Your task to perform on an android device: What's the weather going to be tomorrow? Image 0: 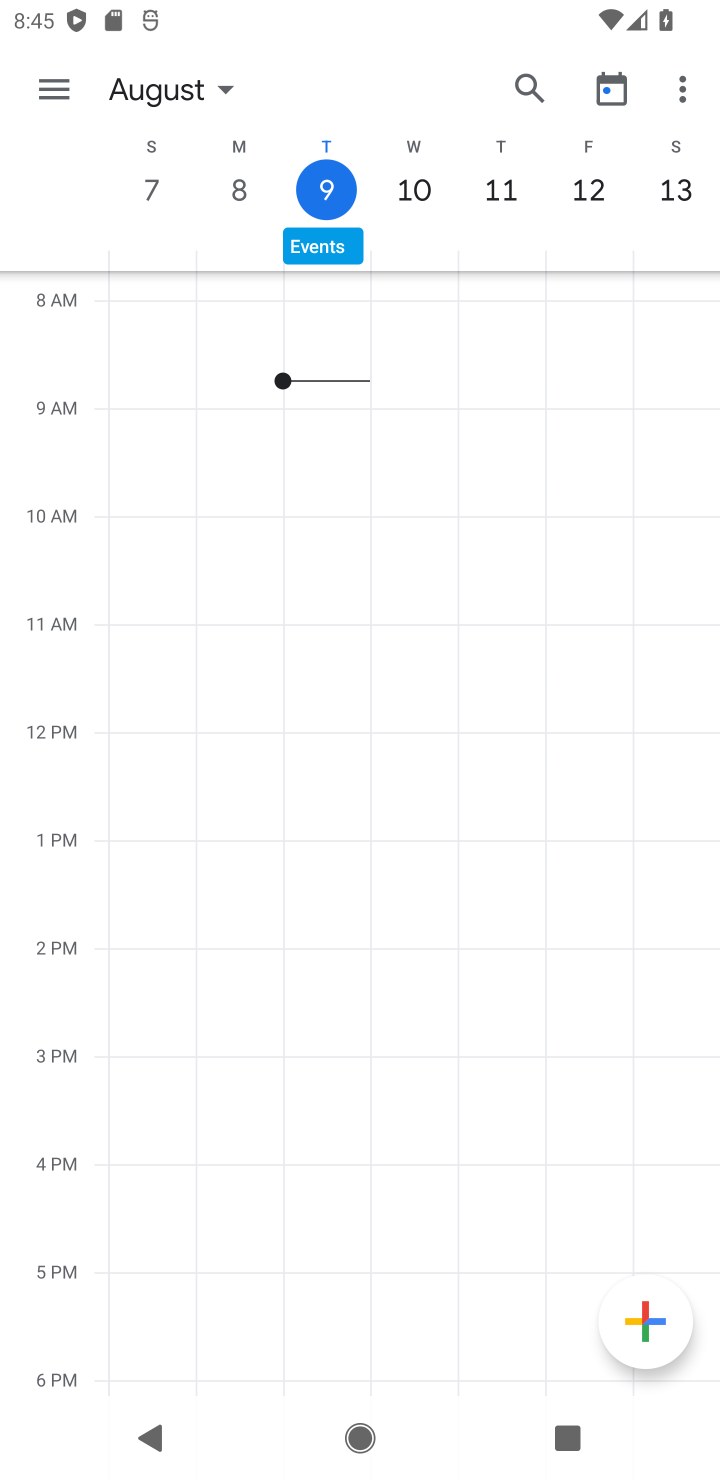
Step 0: press home button
Your task to perform on an android device: What's the weather going to be tomorrow? Image 1: 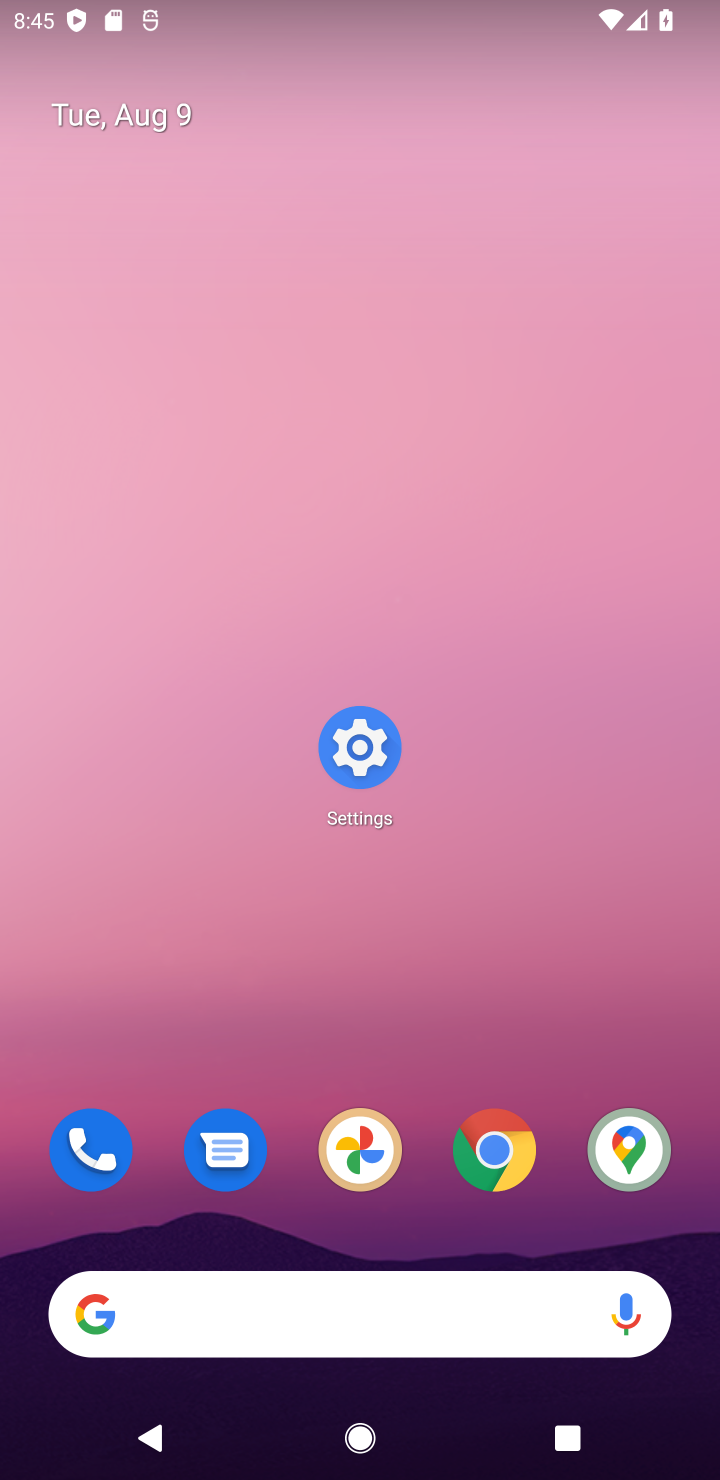
Step 1: click (242, 1308)
Your task to perform on an android device: What's the weather going to be tomorrow? Image 2: 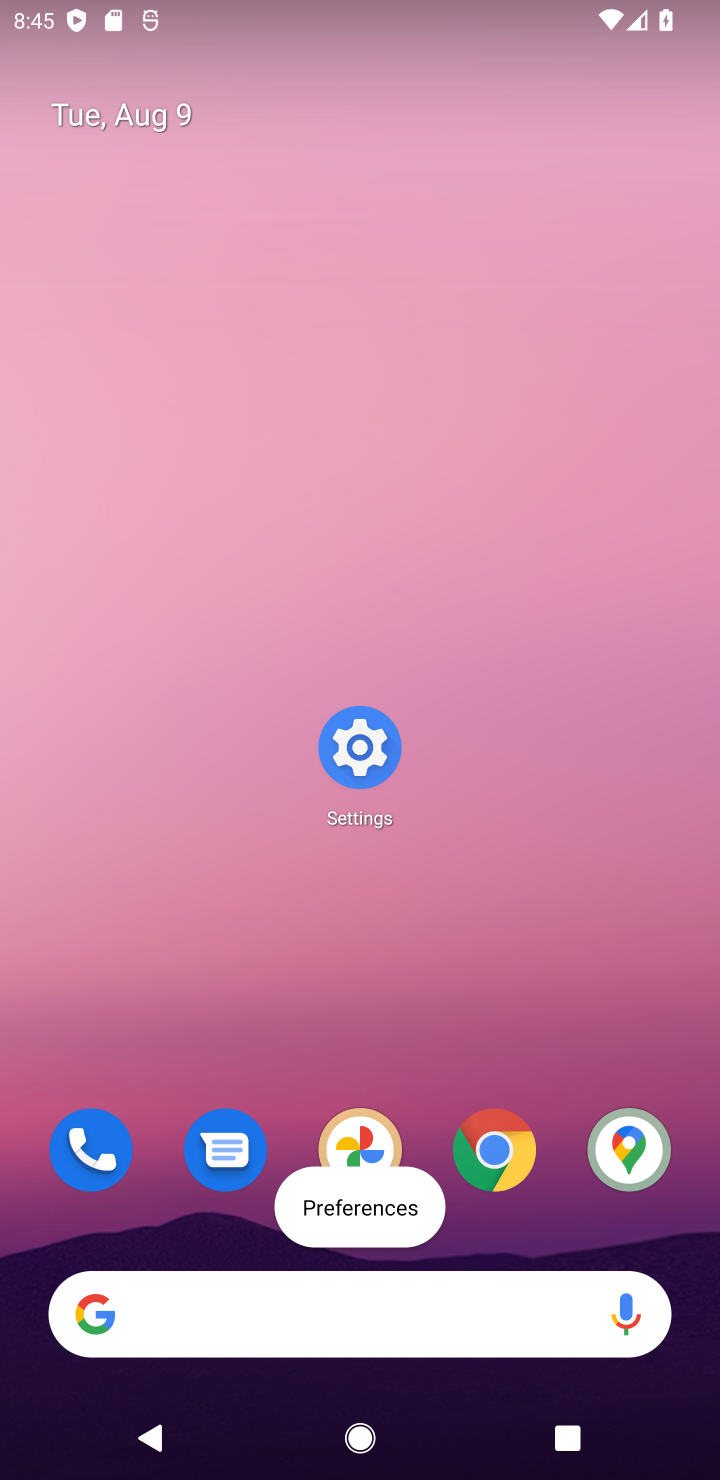
Step 2: click (240, 1303)
Your task to perform on an android device: What's the weather going to be tomorrow? Image 3: 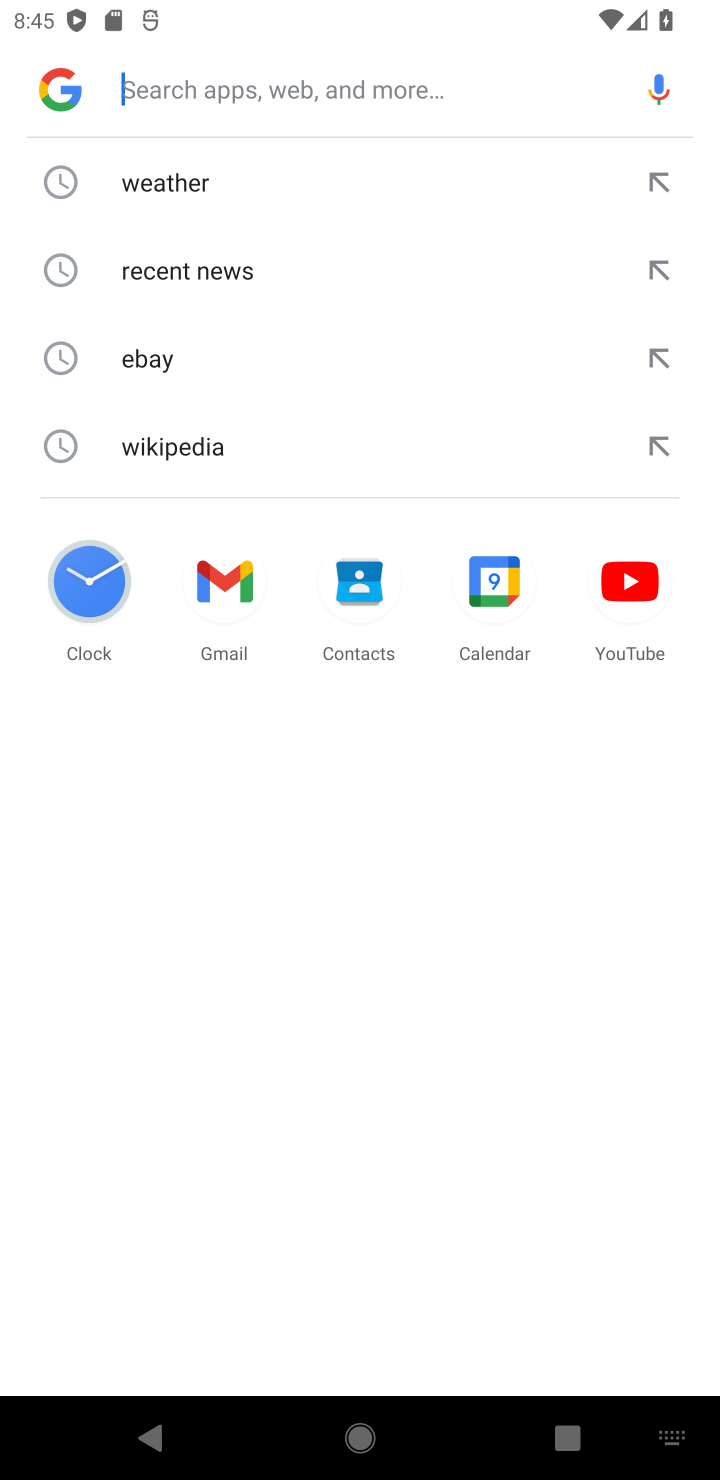
Step 3: click (156, 180)
Your task to perform on an android device: What's the weather going to be tomorrow? Image 4: 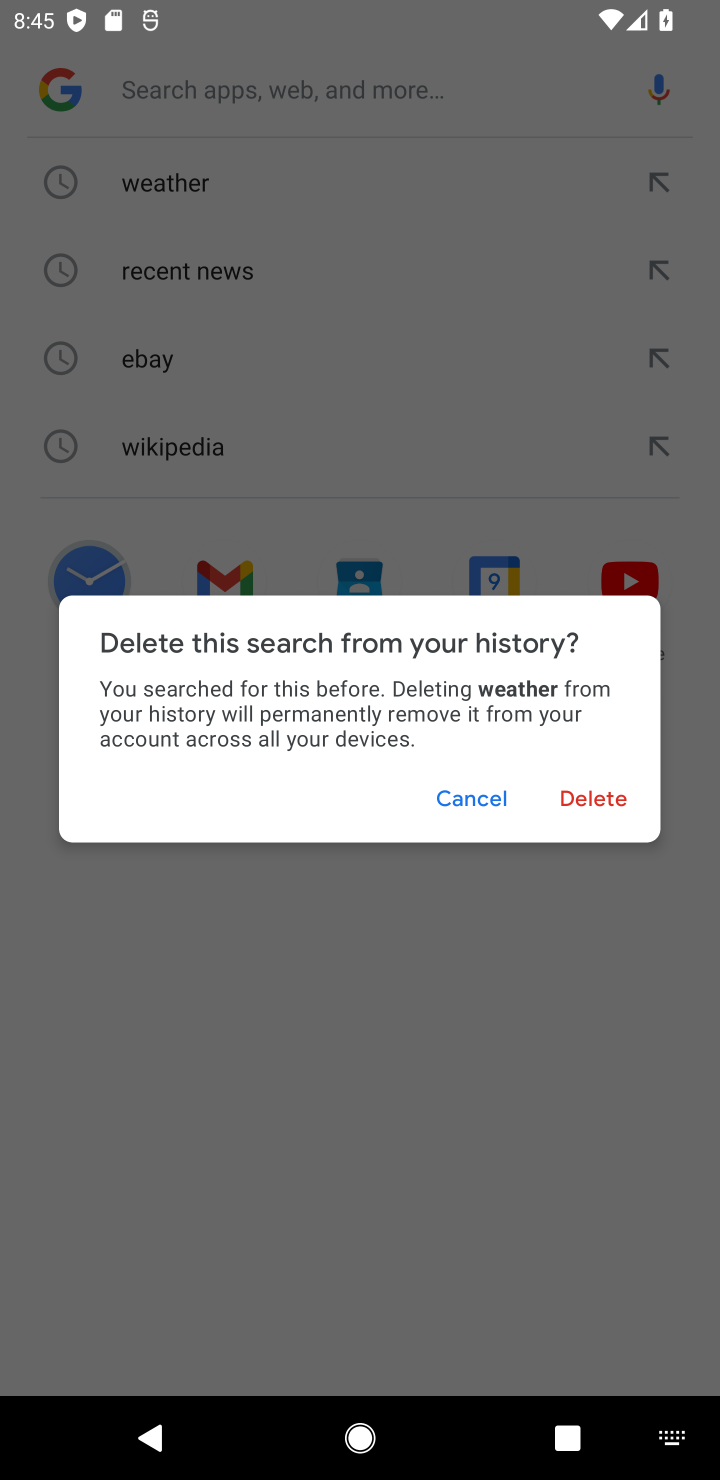
Step 4: click (483, 801)
Your task to perform on an android device: What's the weather going to be tomorrow? Image 5: 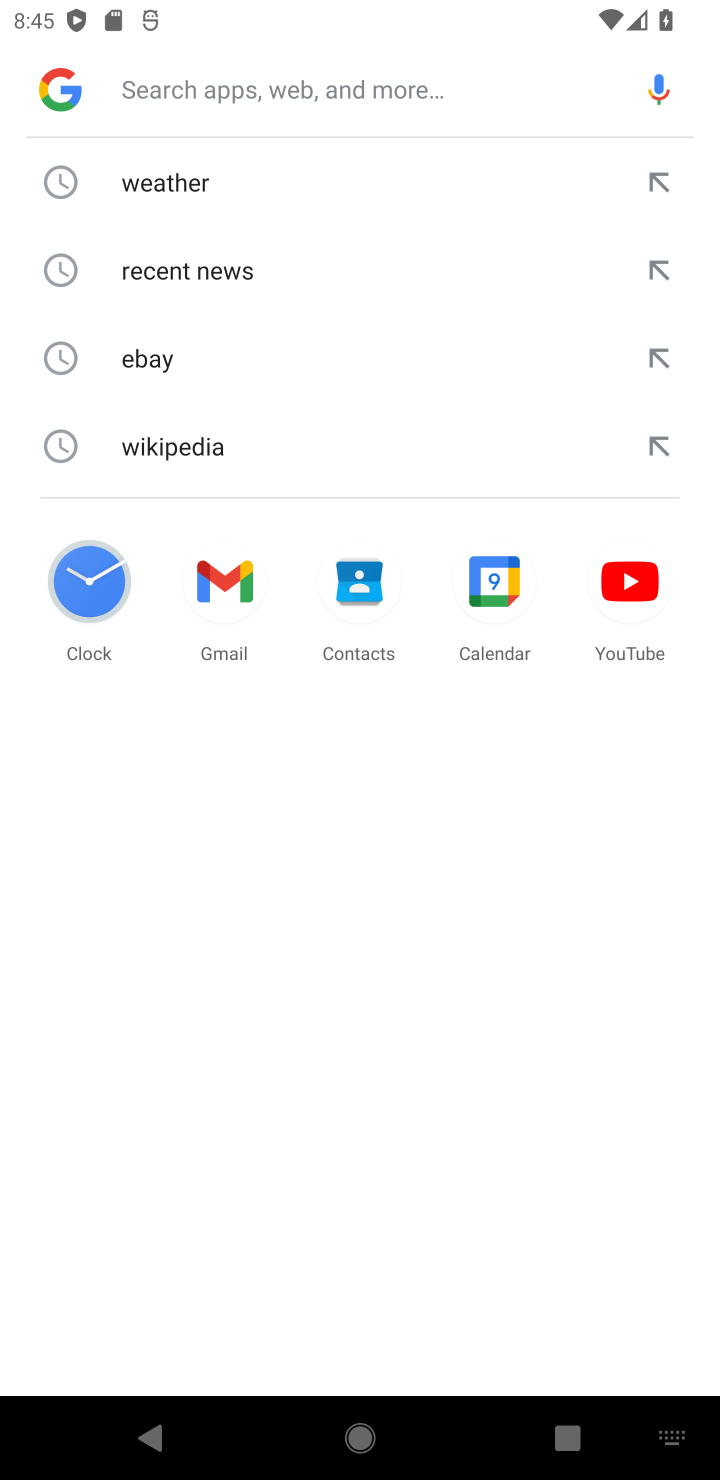
Step 5: click (660, 179)
Your task to perform on an android device: What's the weather going to be tomorrow? Image 6: 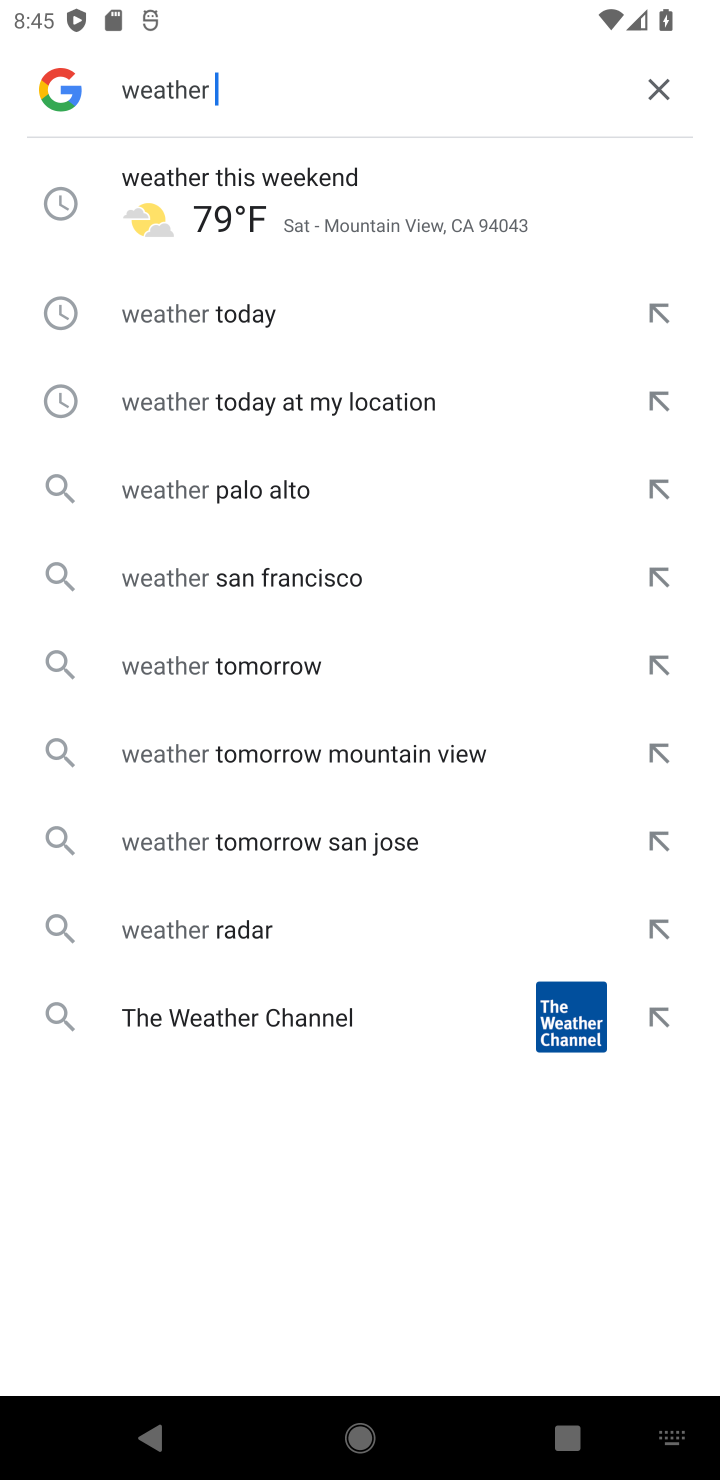
Step 6: click (255, 322)
Your task to perform on an android device: What's the weather going to be tomorrow? Image 7: 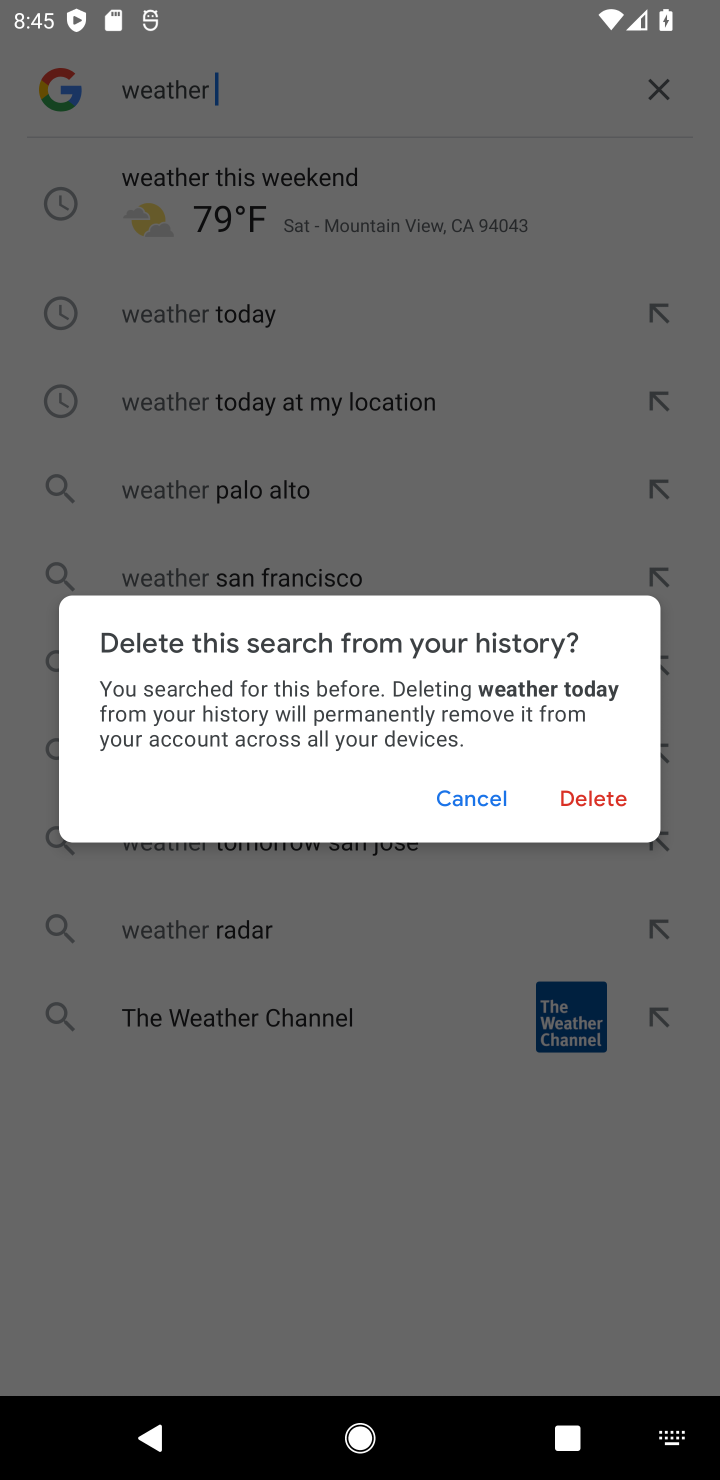
Step 7: click (508, 795)
Your task to perform on an android device: What's the weather going to be tomorrow? Image 8: 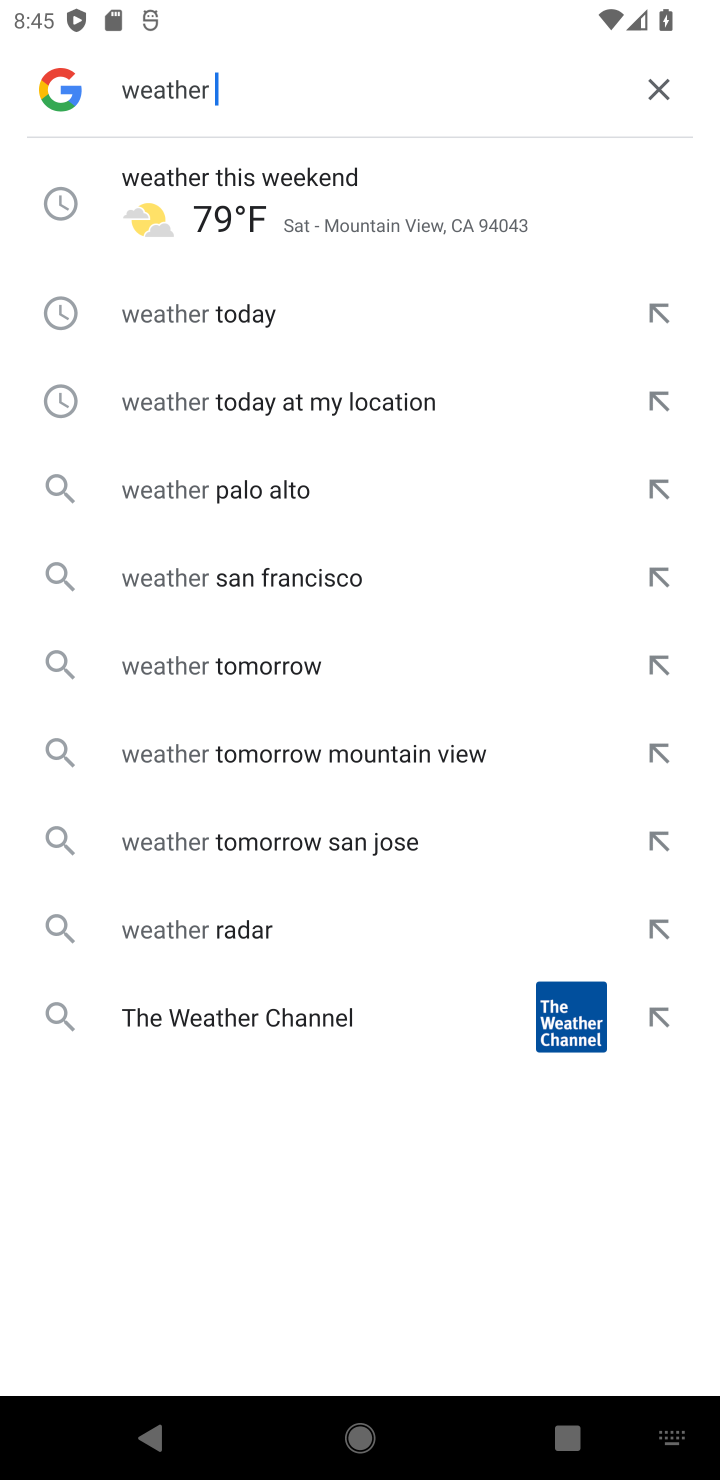
Step 8: click (670, 316)
Your task to perform on an android device: What's the weather going to be tomorrow? Image 9: 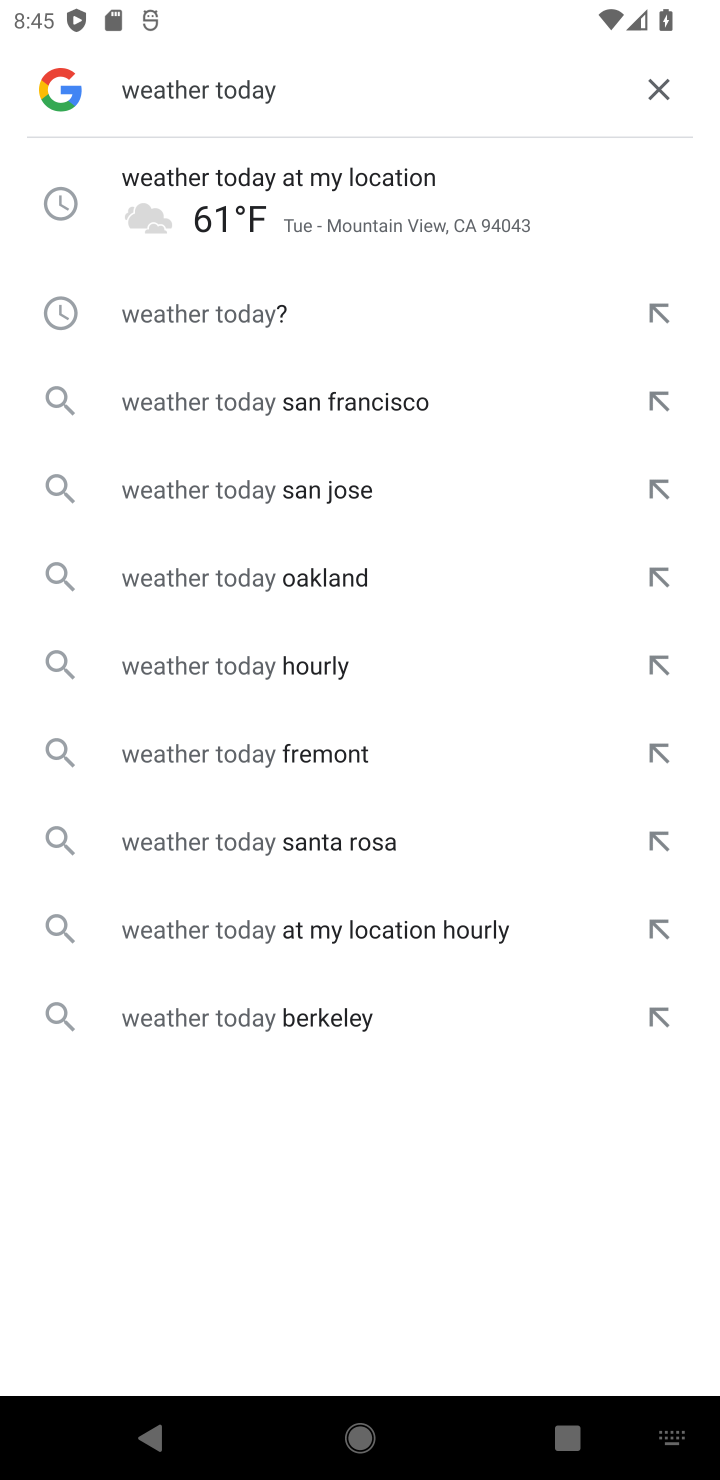
Step 9: click (224, 315)
Your task to perform on an android device: What's the weather going to be tomorrow? Image 10: 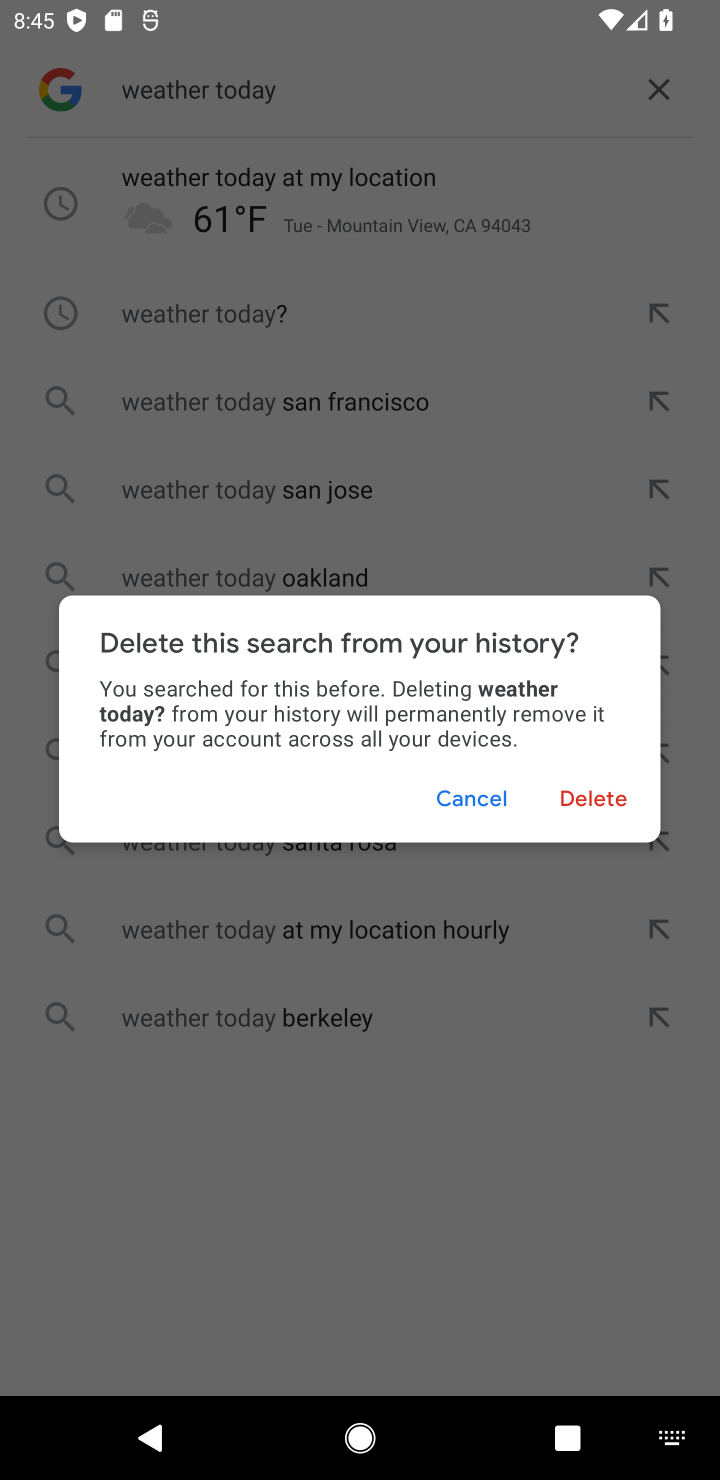
Step 10: click (492, 793)
Your task to perform on an android device: What's the weather going to be tomorrow? Image 11: 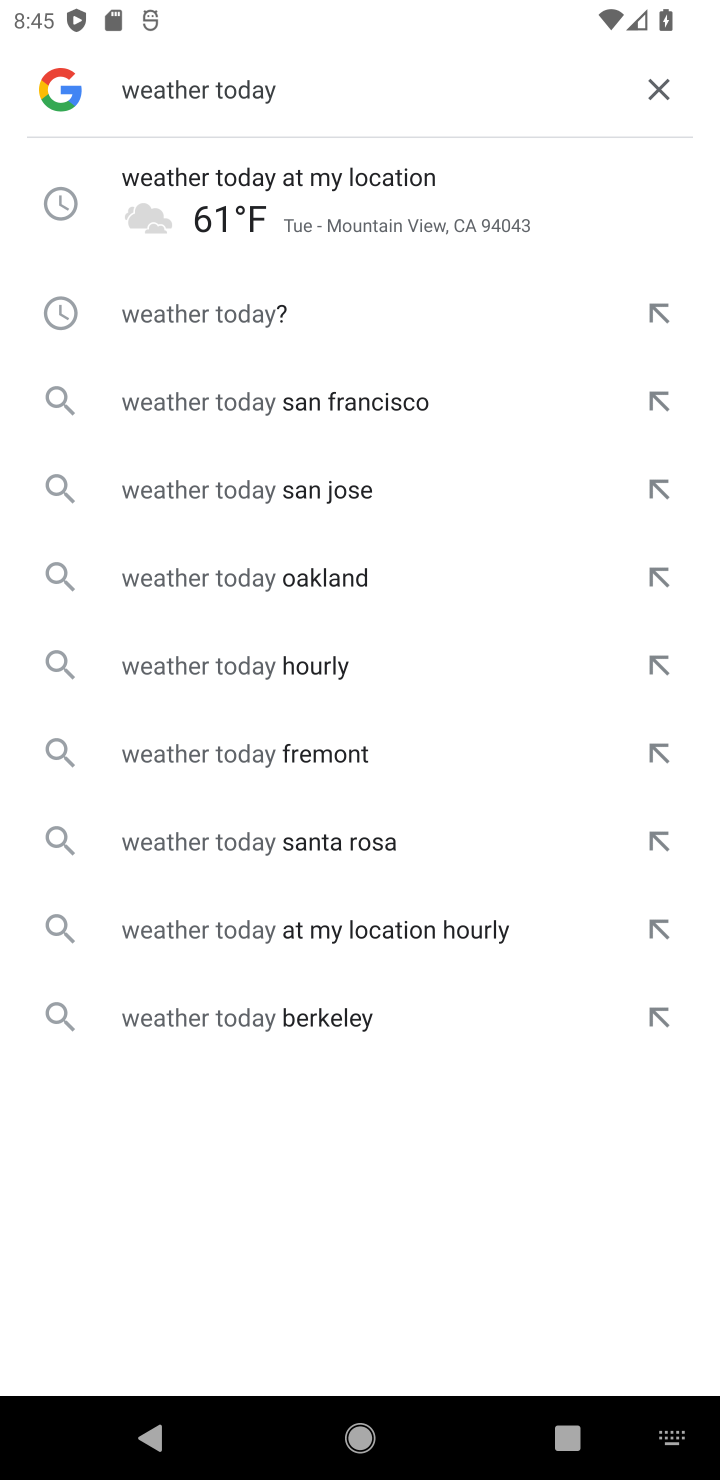
Step 11: click (477, 211)
Your task to perform on an android device: What's the weather going to be tomorrow? Image 12: 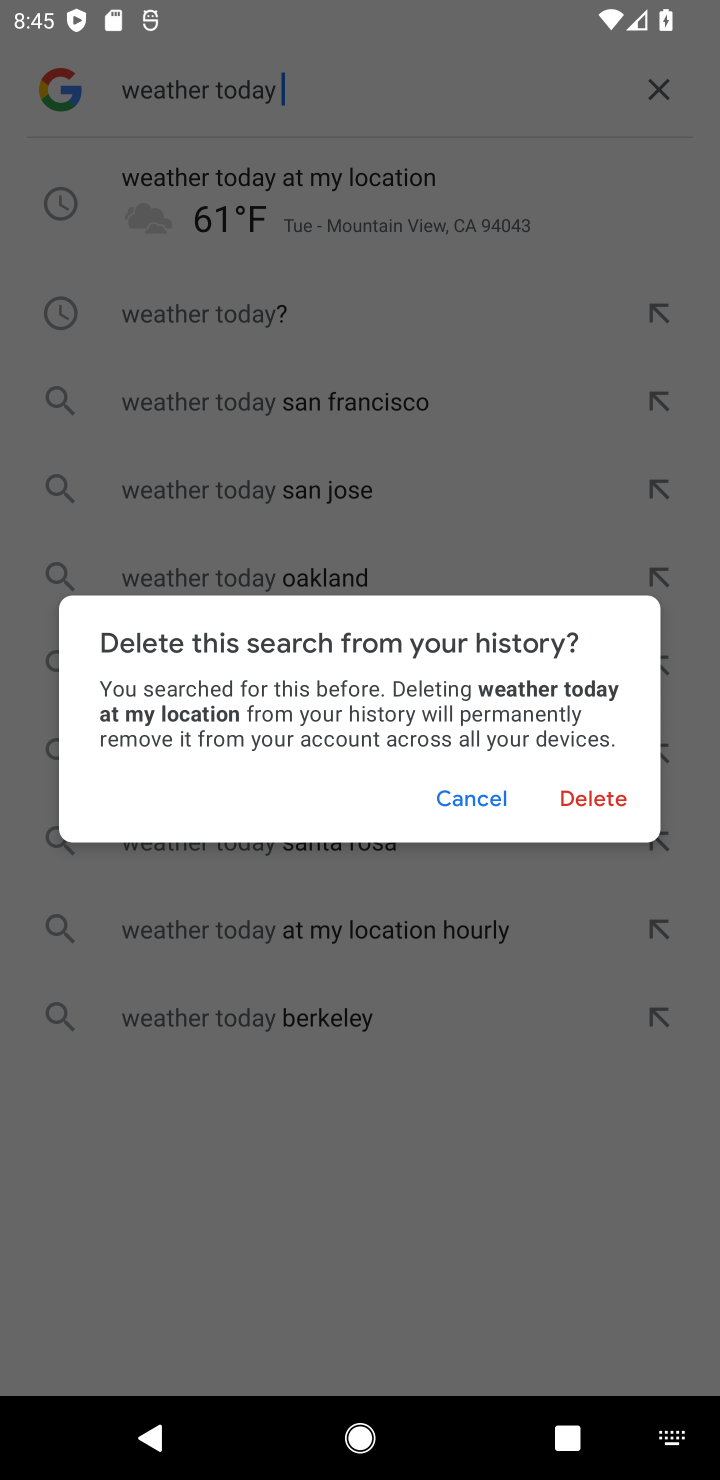
Step 12: click (466, 782)
Your task to perform on an android device: What's the weather going to be tomorrow? Image 13: 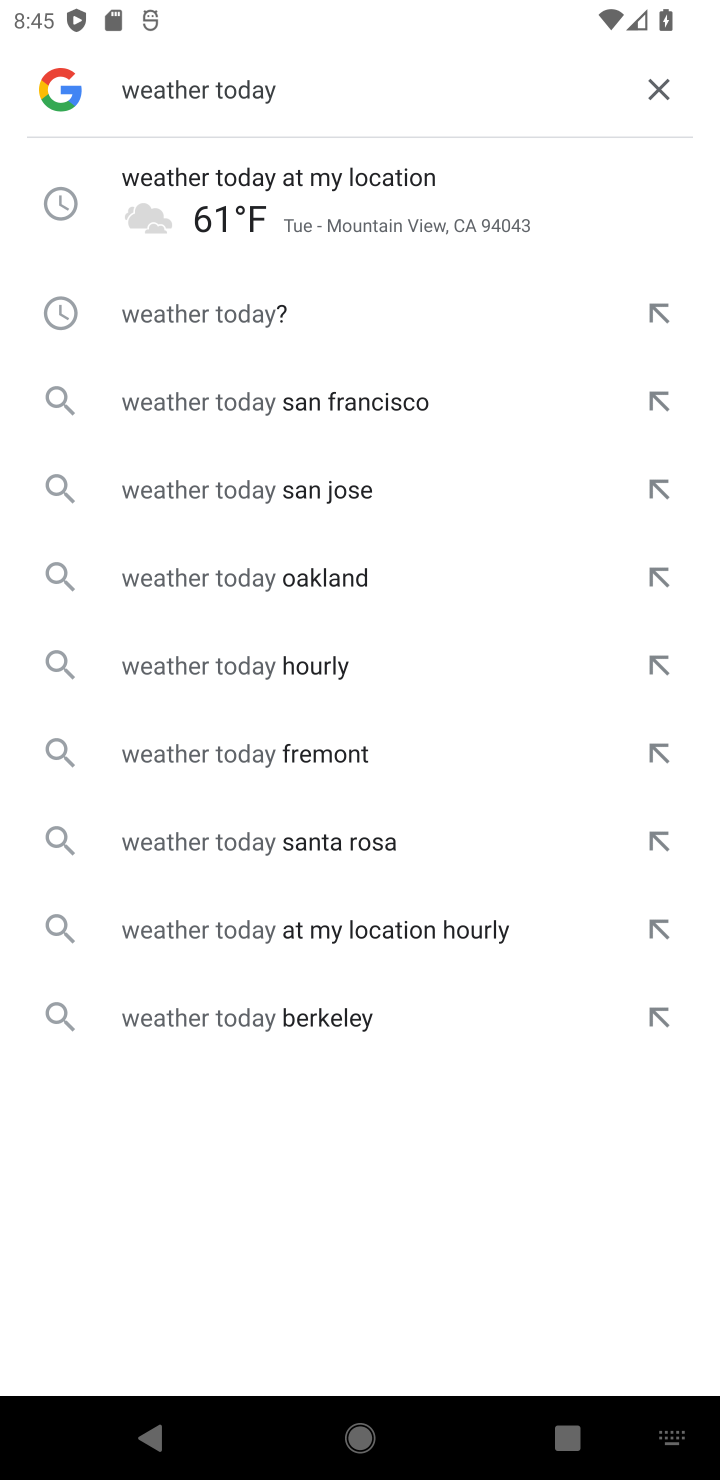
Step 13: click (225, 164)
Your task to perform on an android device: What's the weather going to be tomorrow? Image 14: 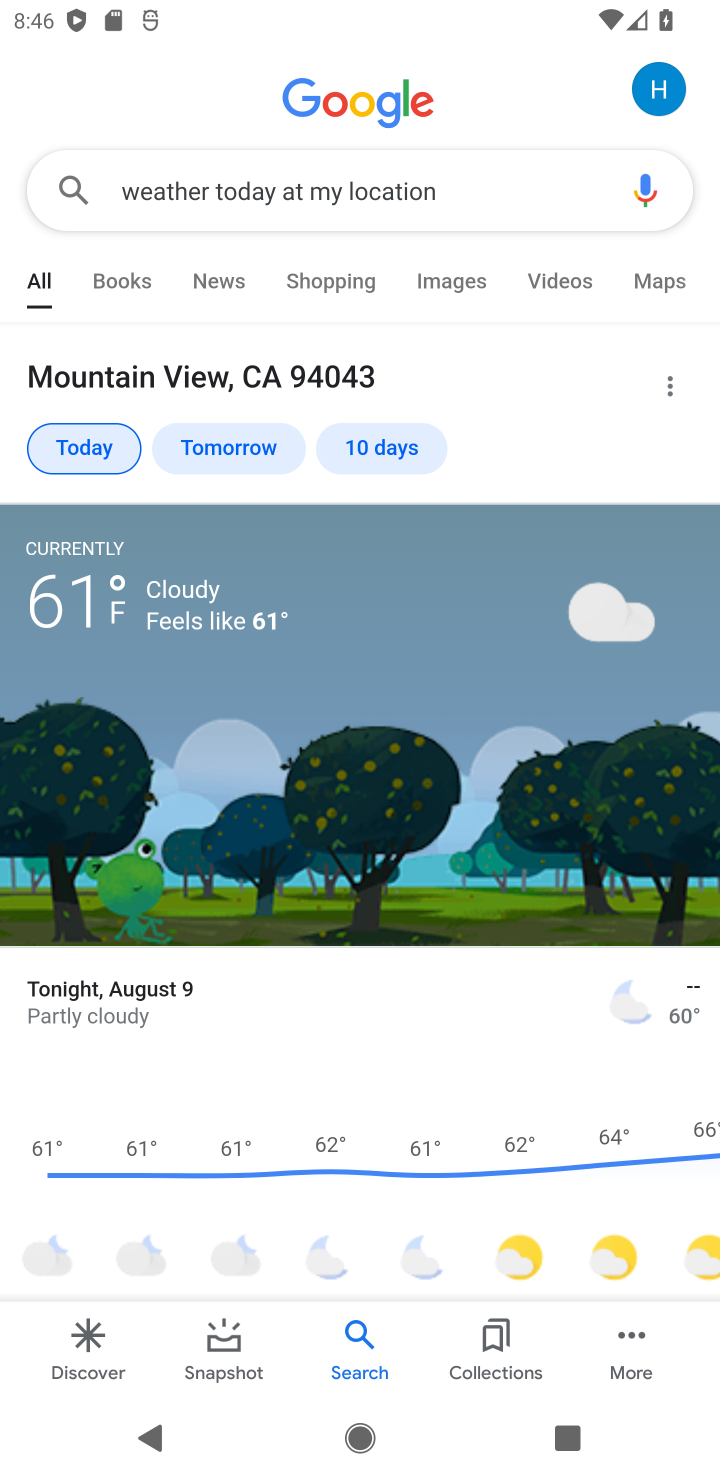
Step 14: click (189, 445)
Your task to perform on an android device: What's the weather going to be tomorrow? Image 15: 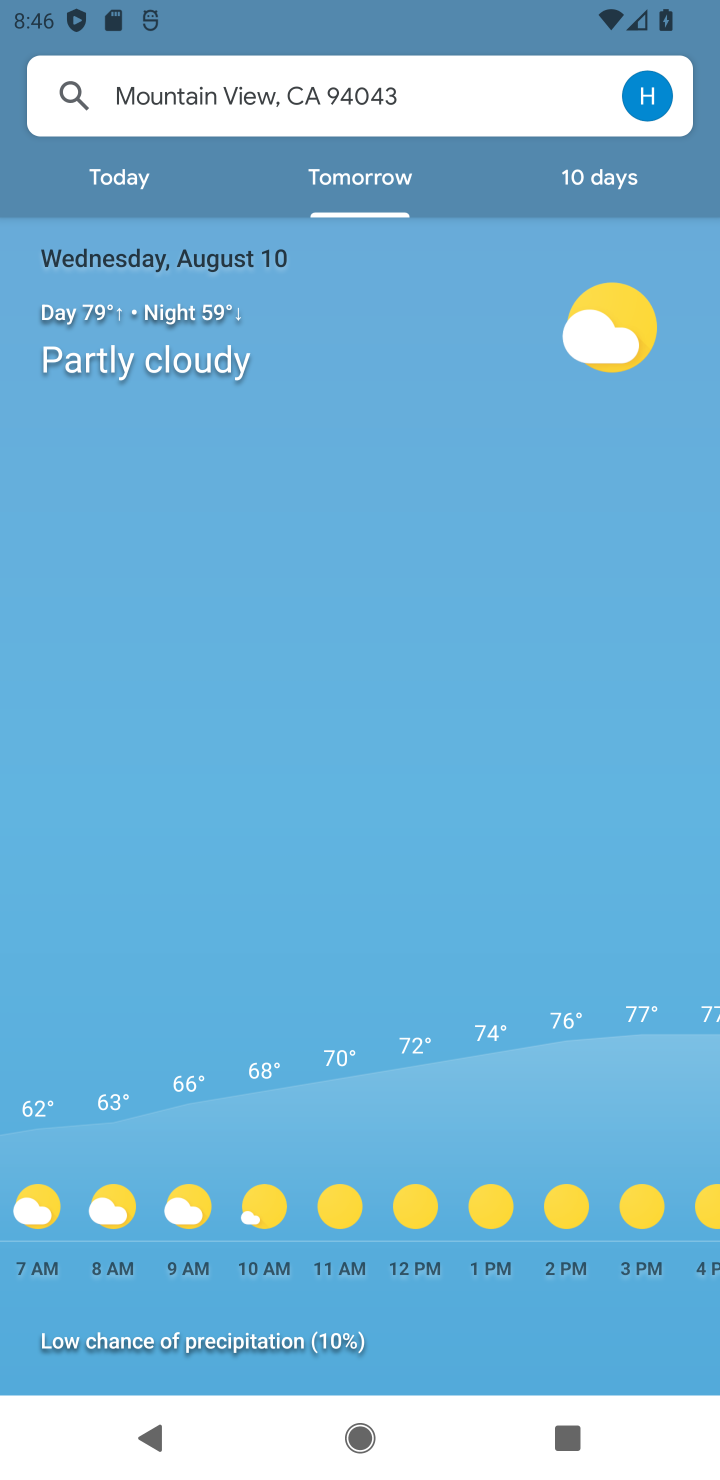
Step 15: task complete